Your task to perform on an android device: What's on my calendar tomorrow? Image 0: 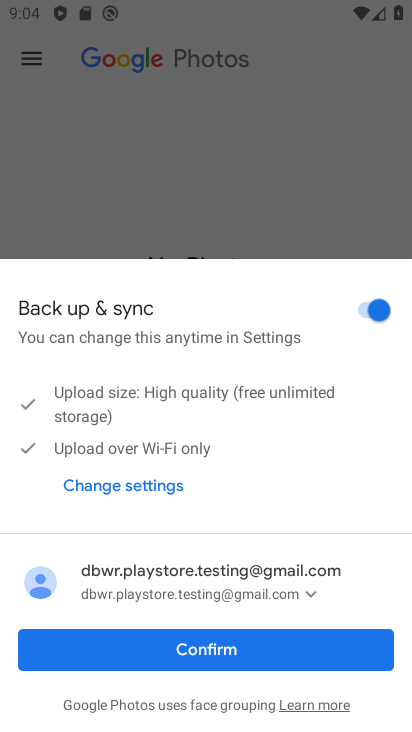
Step 0: press home button
Your task to perform on an android device: What's on my calendar tomorrow? Image 1: 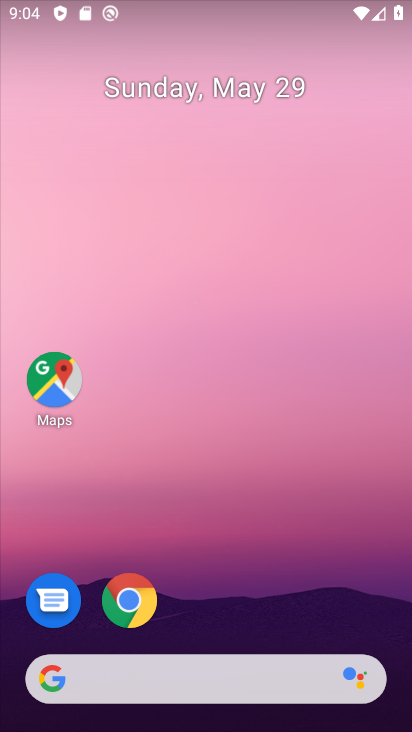
Step 1: drag from (203, 617) to (147, 74)
Your task to perform on an android device: What's on my calendar tomorrow? Image 2: 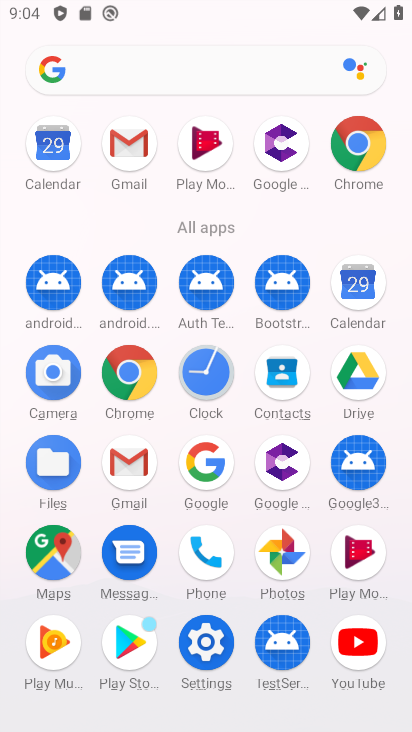
Step 2: click (357, 277)
Your task to perform on an android device: What's on my calendar tomorrow? Image 3: 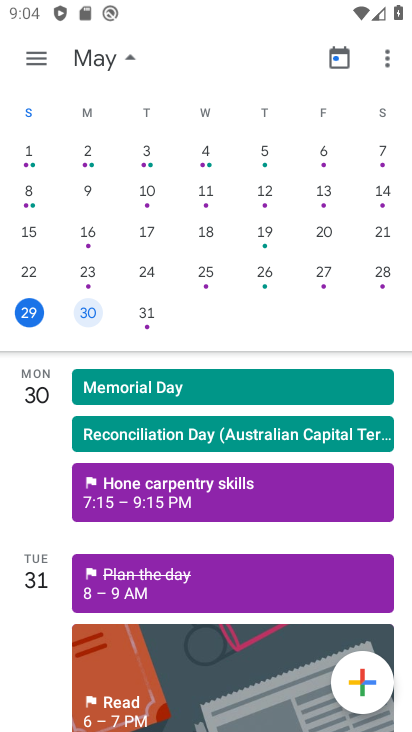
Step 3: click (147, 303)
Your task to perform on an android device: What's on my calendar tomorrow? Image 4: 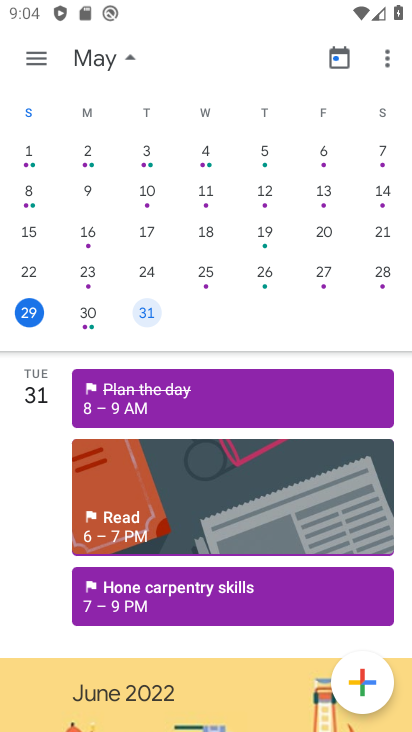
Step 4: task complete